Your task to perform on an android device: Check the news Image 0: 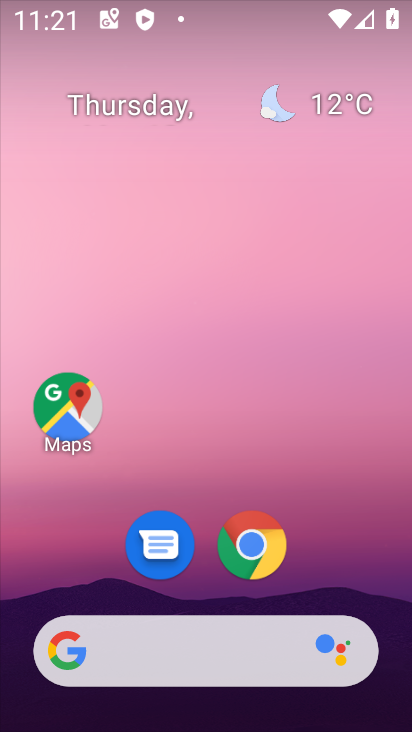
Step 0: click (227, 660)
Your task to perform on an android device: Check the news Image 1: 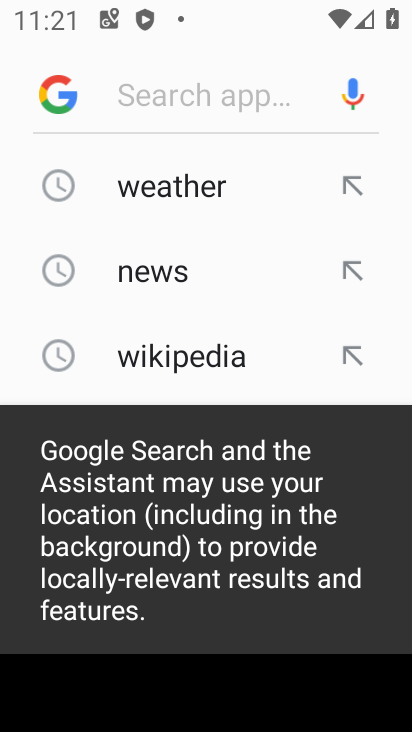
Step 1: click (198, 275)
Your task to perform on an android device: Check the news Image 2: 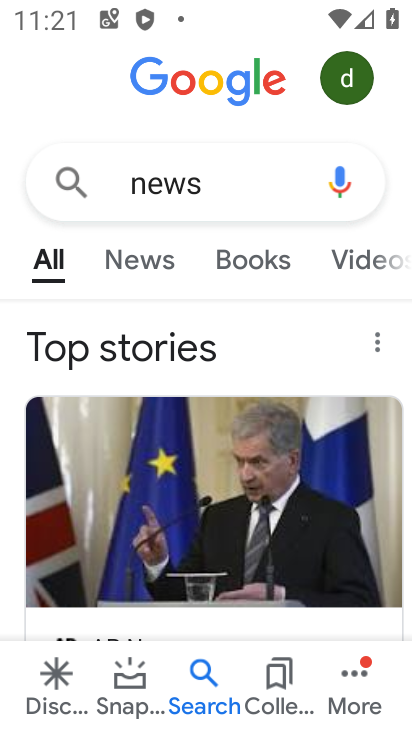
Step 2: task complete